Your task to perform on an android device: check out phone information Image 0: 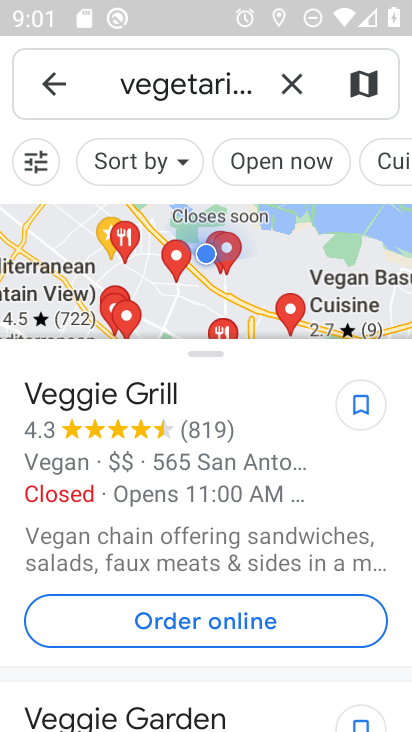
Step 0: press home button
Your task to perform on an android device: check out phone information Image 1: 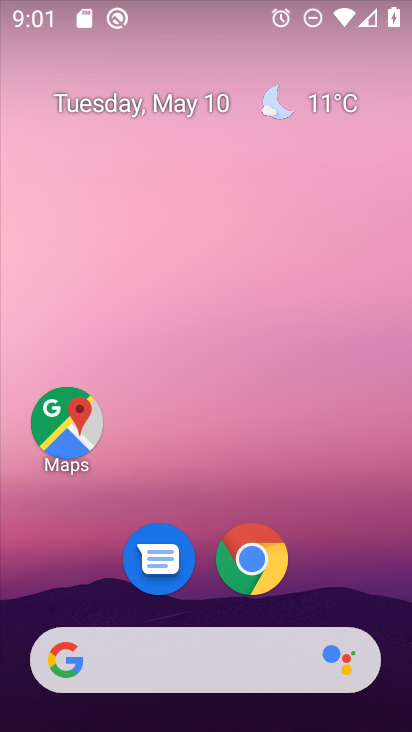
Step 1: drag from (206, 727) to (142, 159)
Your task to perform on an android device: check out phone information Image 2: 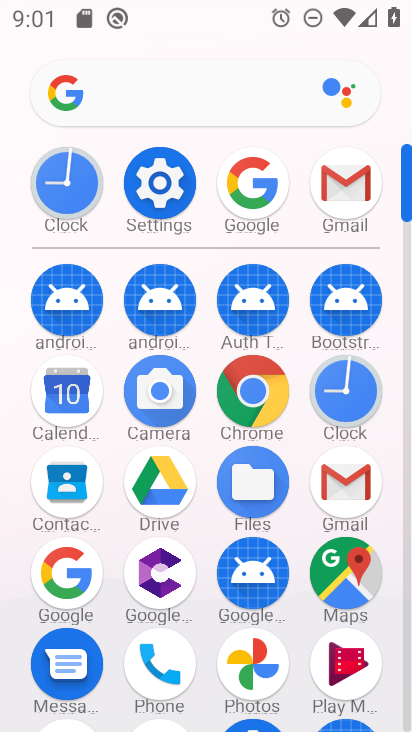
Step 2: click (168, 199)
Your task to perform on an android device: check out phone information Image 3: 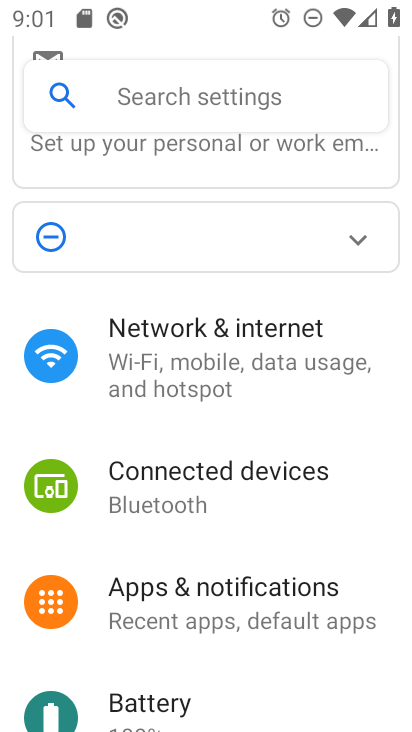
Step 3: drag from (231, 686) to (197, 308)
Your task to perform on an android device: check out phone information Image 4: 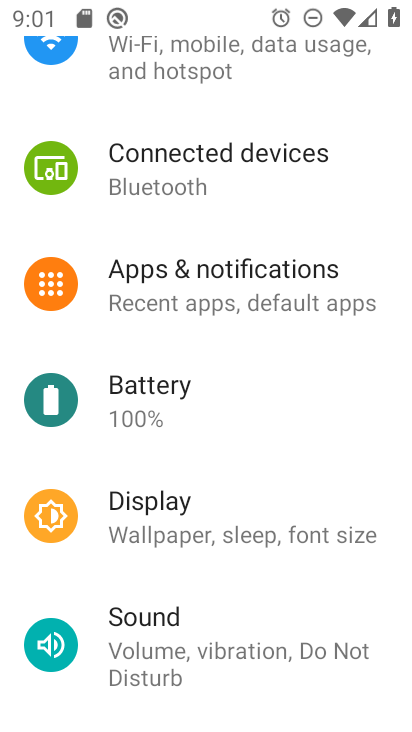
Step 4: drag from (231, 693) to (226, 274)
Your task to perform on an android device: check out phone information Image 5: 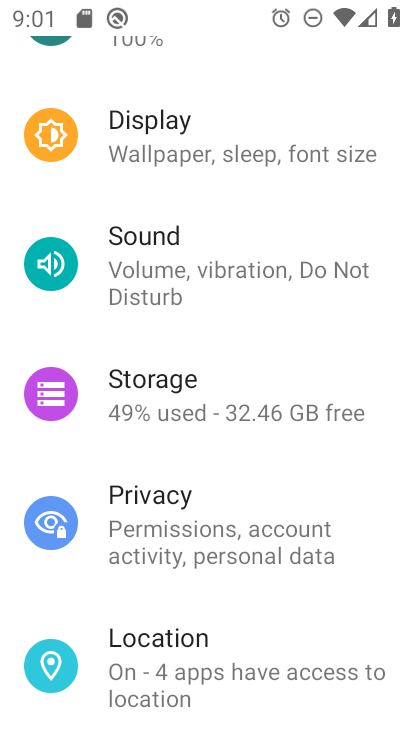
Step 5: drag from (245, 698) to (236, 338)
Your task to perform on an android device: check out phone information Image 6: 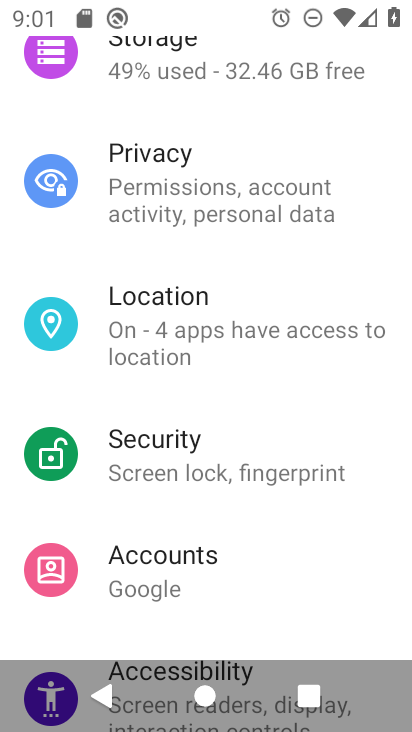
Step 6: drag from (219, 624) to (234, 290)
Your task to perform on an android device: check out phone information Image 7: 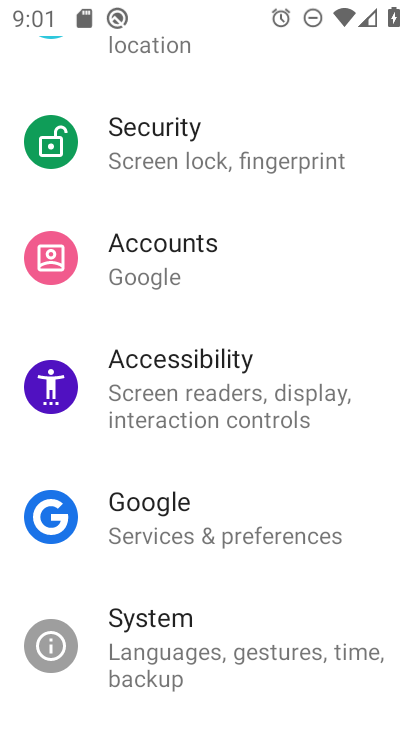
Step 7: drag from (224, 679) to (229, 361)
Your task to perform on an android device: check out phone information Image 8: 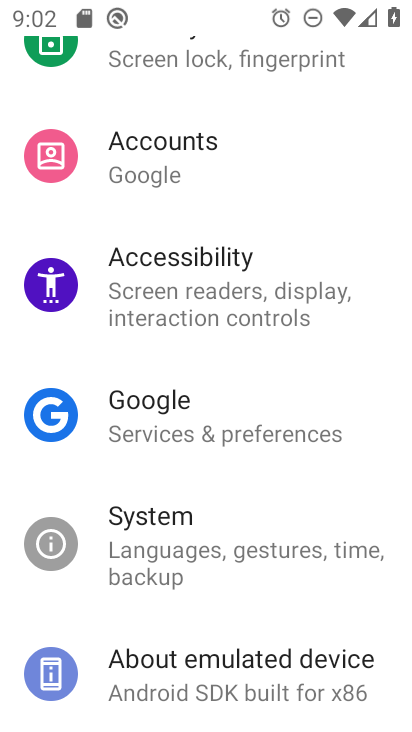
Step 8: click (223, 668)
Your task to perform on an android device: check out phone information Image 9: 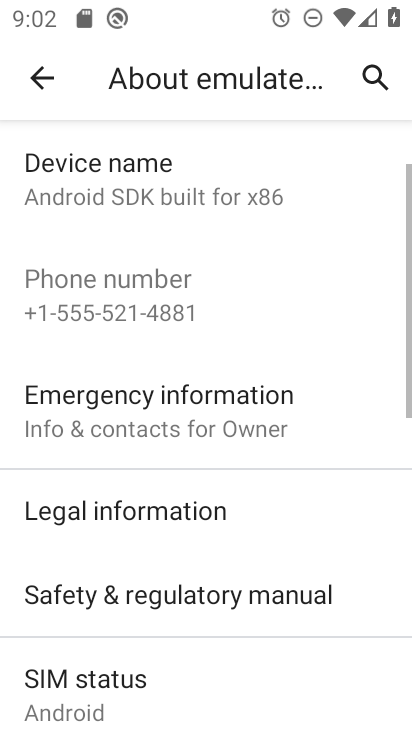
Step 9: task complete